Your task to perform on an android device: Go to Reddit.com Image 0: 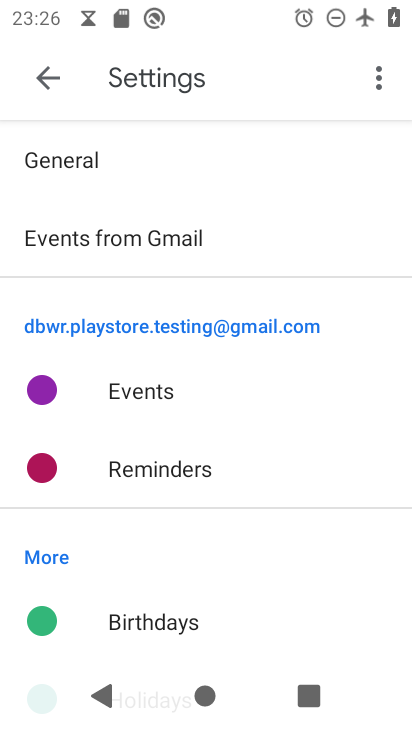
Step 0: press home button
Your task to perform on an android device: Go to Reddit.com Image 1: 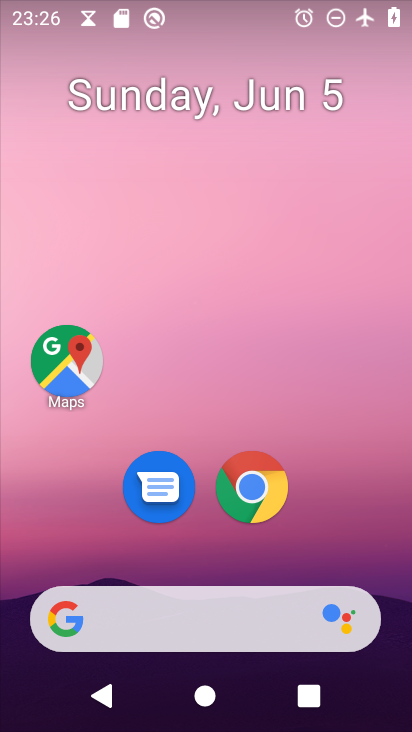
Step 1: click (253, 483)
Your task to perform on an android device: Go to Reddit.com Image 2: 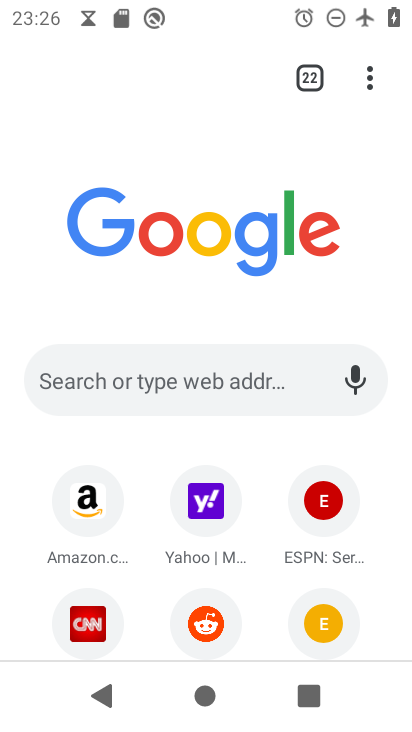
Step 2: click (225, 368)
Your task to perform on an android device: Go to Reddit.com Image 3: 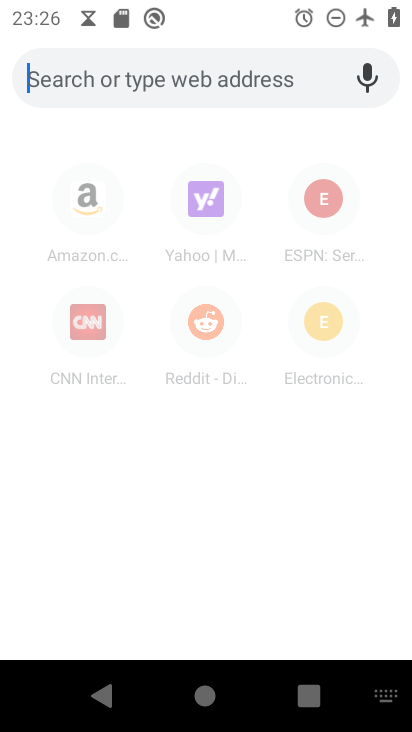
Step 3: click (191, 79)
Your task to perform on an android device: Go to Reddit.com Image 4: 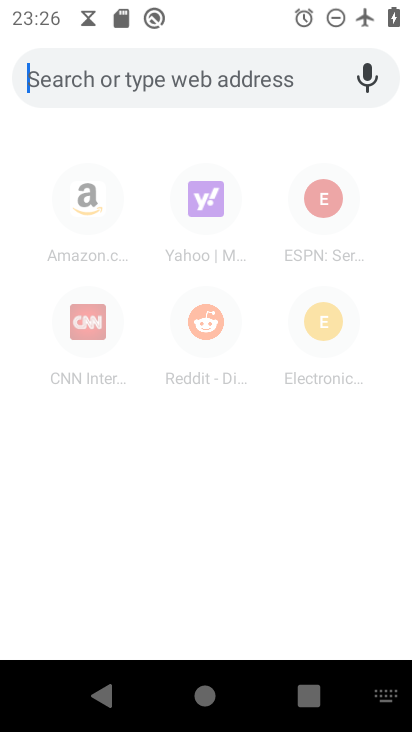
Step 4: type " Reddit.com"
Your task to perform on an android device: Go to Reddit.com Image 5: 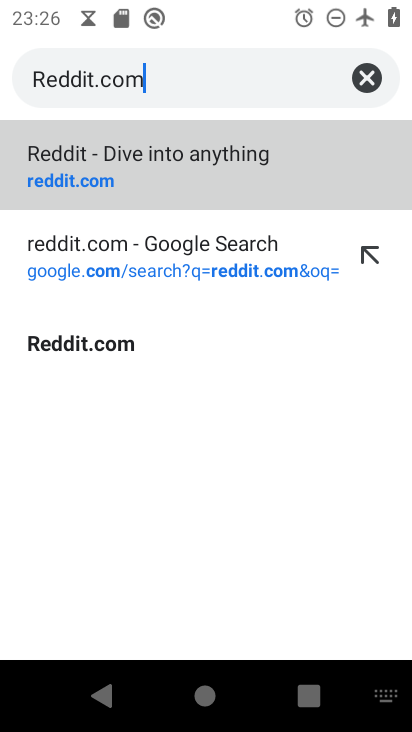
Step 5: click (159, 163)
Your task to perform on an android device: Go to Reddit.com Image 6: 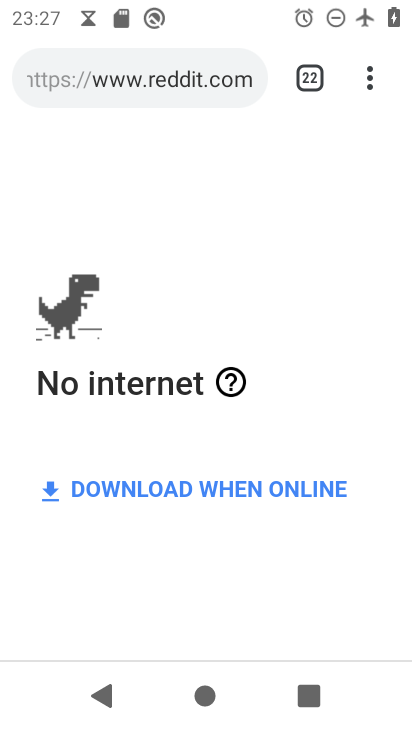
Step 6: task complete